Your task to perform on an android device: What is the news today? Image 0: 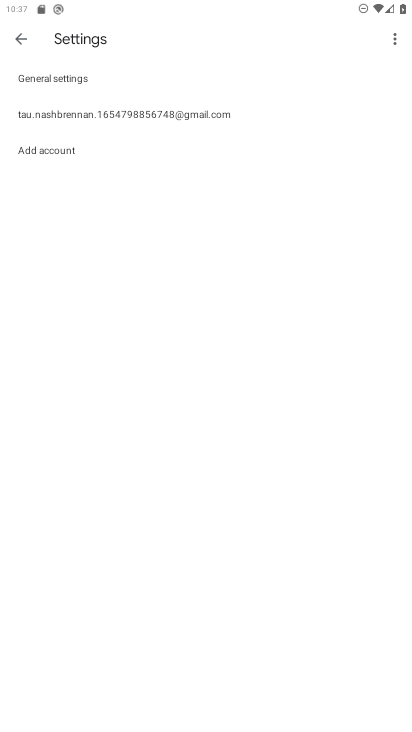
Step 0: press back button
Your task to perform on an android device: What is the news today? Image 1: 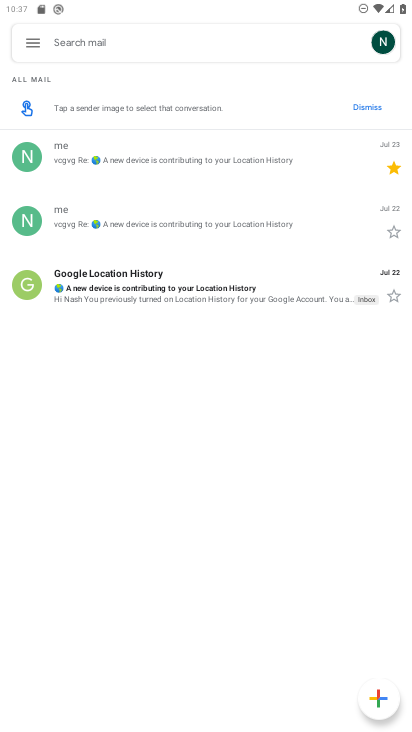
Step 1: press back button
Your task to perform on an android device: What is the news today? Image 2: 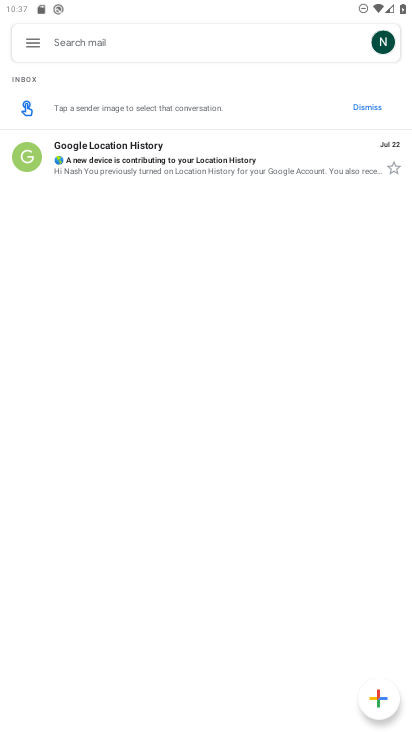
Step 2: press back button
Your task to perform on an android device: What is the news today? Image 3: 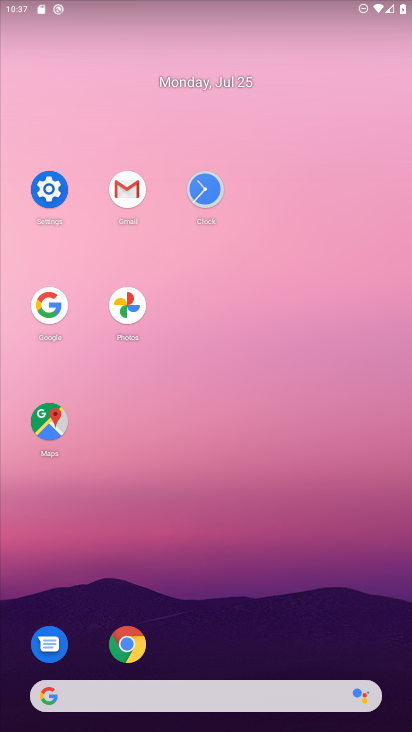
Step 3: click (56, 306)
Your task to perform on an android device: What is the news today? Image 4: 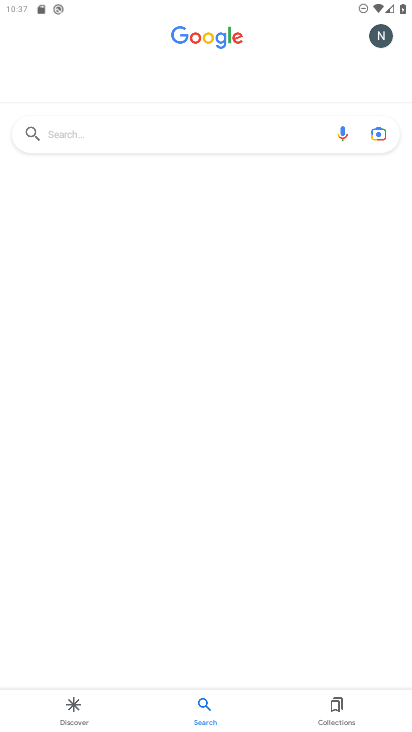
Step 4: click (178, 145)
Your task to perform on an android device: What is the news today? Image 5: 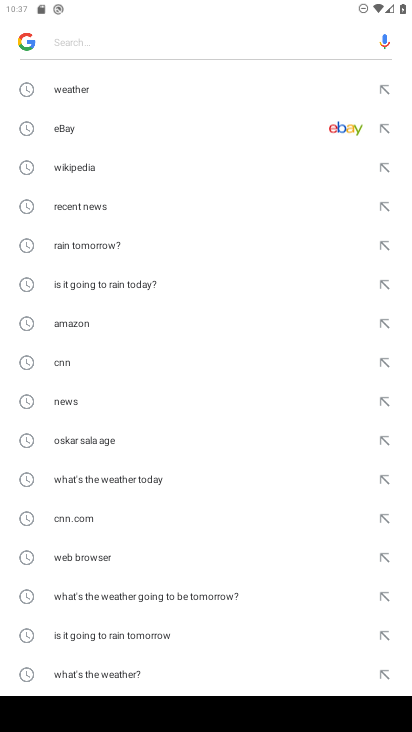
Step 5: click (115, 394)
Your task to perform on an android device: What is the news today? Image 6: 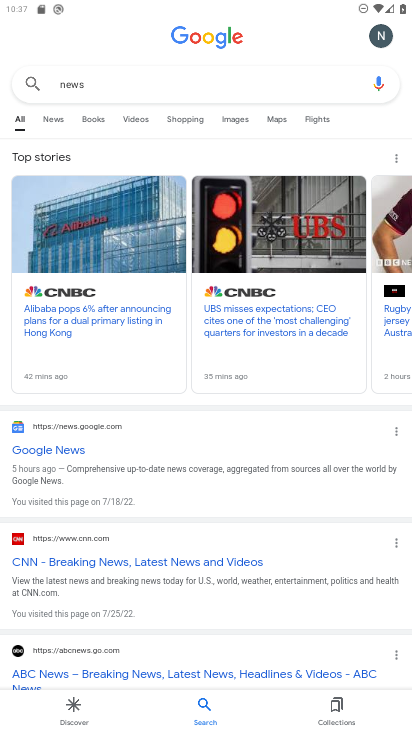
Step 6: task complete